Your task to perform on an android device: Search for sushi restaurants on Maps Image 0: 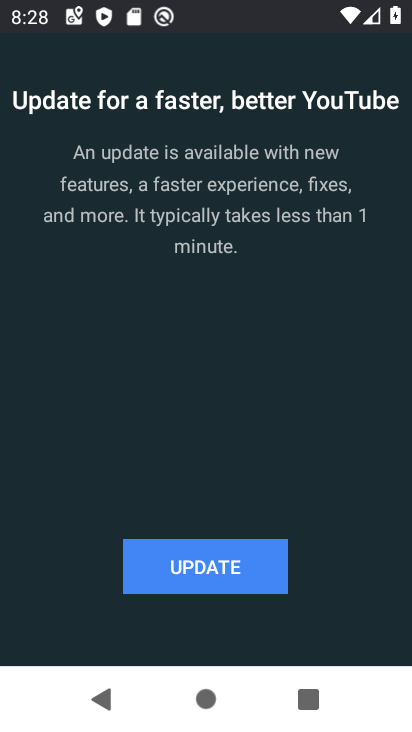
Step 0: press home button
Your task to perform on an android device: Search for sushi restaurants on Maps Image 1: 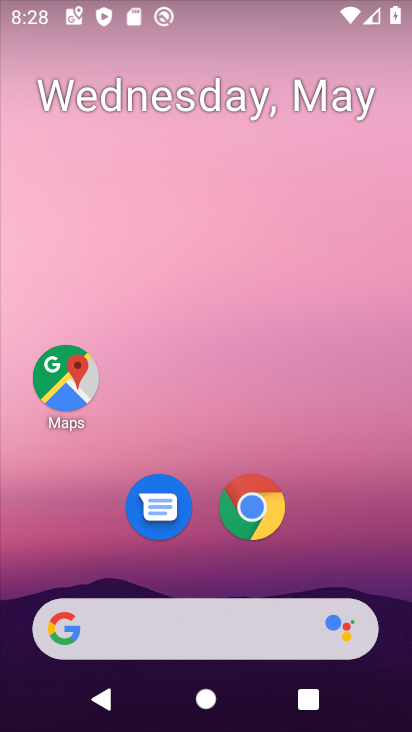
Step 1: click (47, 370)
Your task to perform on an android device: Search for sushi restaurants on Maps Image 2: 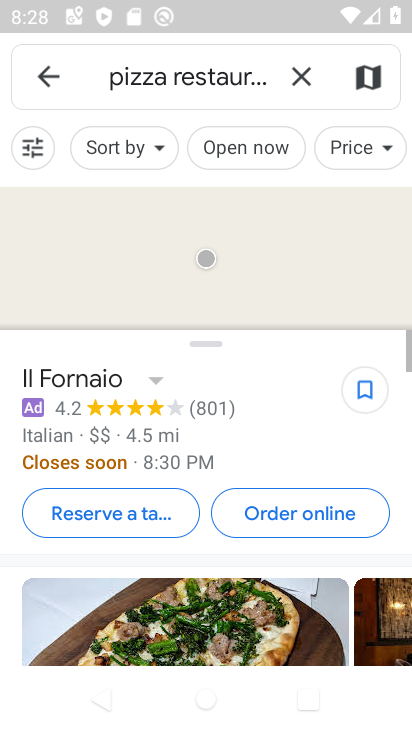
Step 2: click (300, 72)
Your task to perform on an android device: Search for sushi restaurants on Maps Image 3: 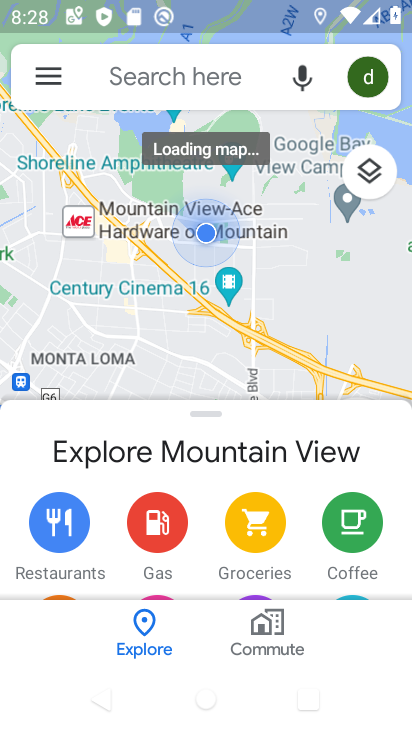
Step 3: click (112, 59)
Your task to perform on an android device: Search for sushi restaurants on Maps Image 4: 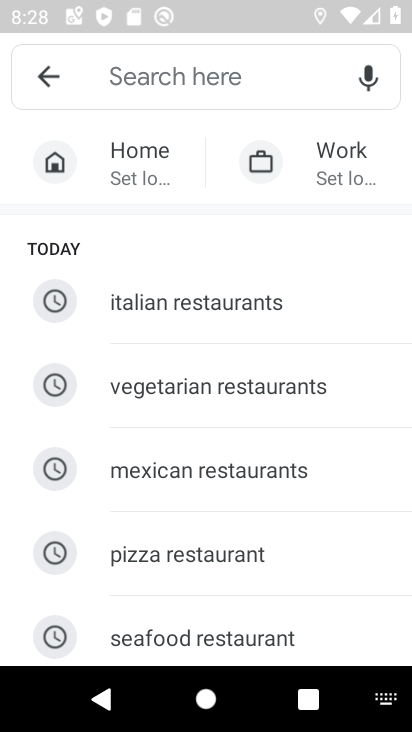
Step 4: type "sushi restaurants "
Your task to perform on an android device: Search for sushi restaurants on Maps Image 5: 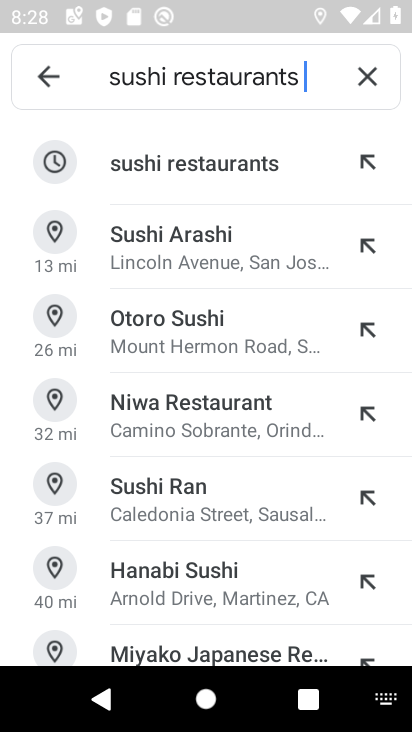
Step 5: click (186, 158)
Your task to perform on an android device: Search for sushi restaurants on Maps Image 6: 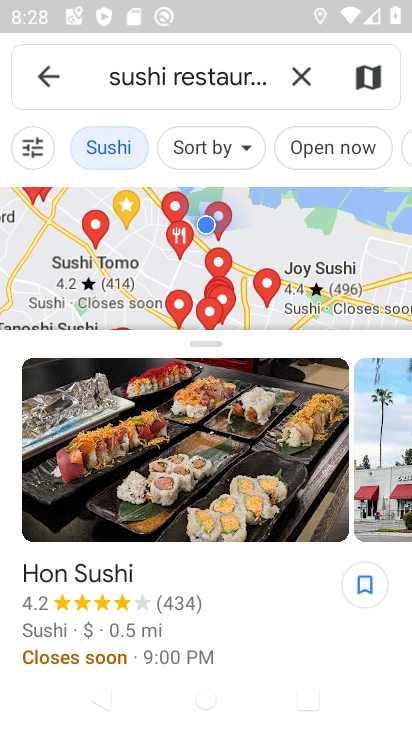
Step 6: task complete